Your task to perform on an android device: Open Chrome and go to the settings page Image 0: 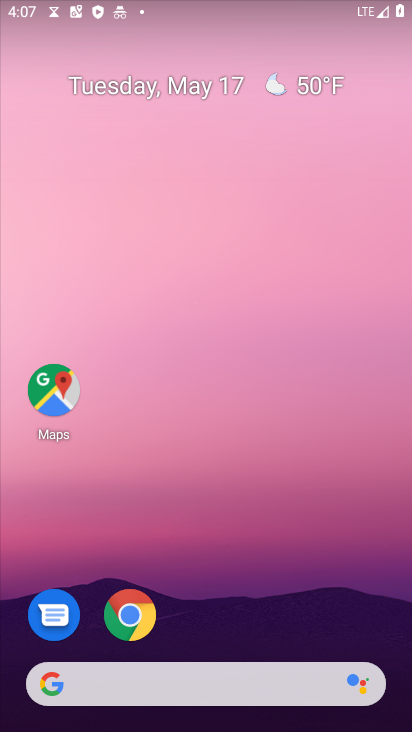
Step 0: drag from (374, 711) to (264, 165)
Your task to perform on an android device: Open Chrome and go to the settings page Image 1: 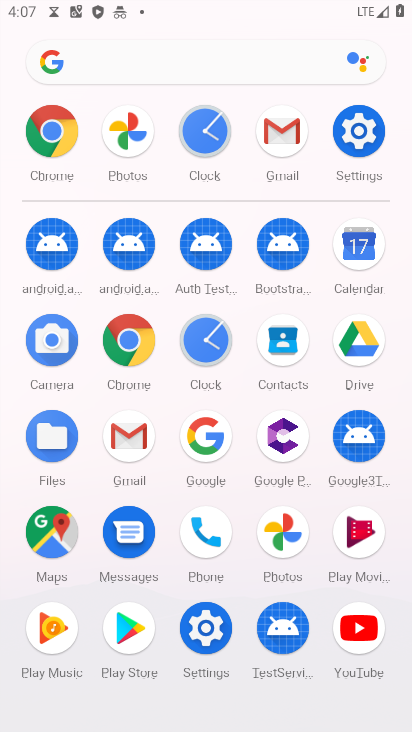
Step 1: click (129, 340)
Your task to perform on an android device: Open Chrome and go to the settings page Image 2: 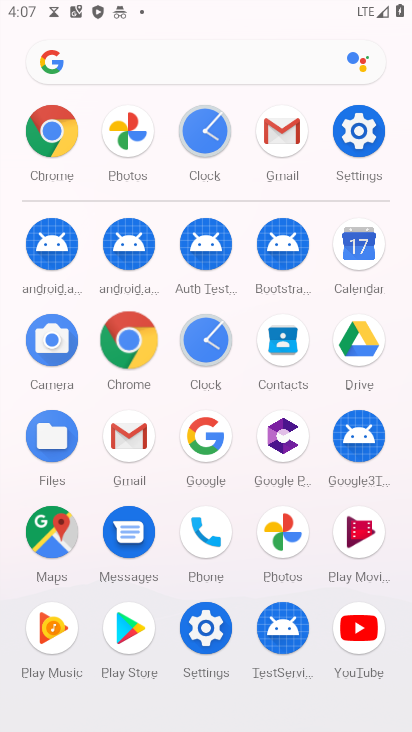
Step 2: click (129, 340)
Your task to perform on an android device: Open Chrome and go to the settings page Image 3: 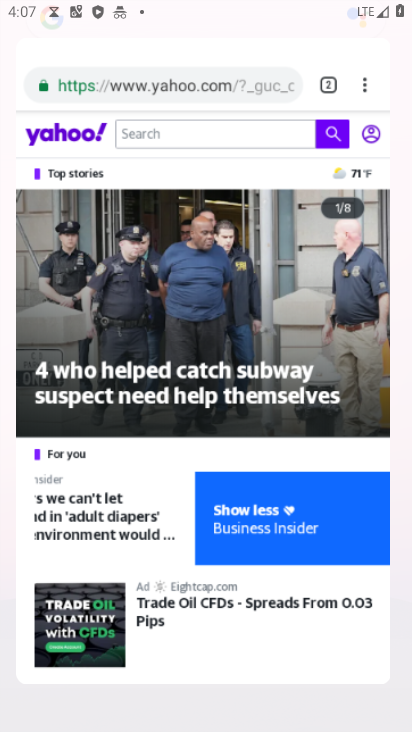
Step 3: click (129, 340)
Your task to perform on an android device: Open Chrome and go to the settings page Image 4: 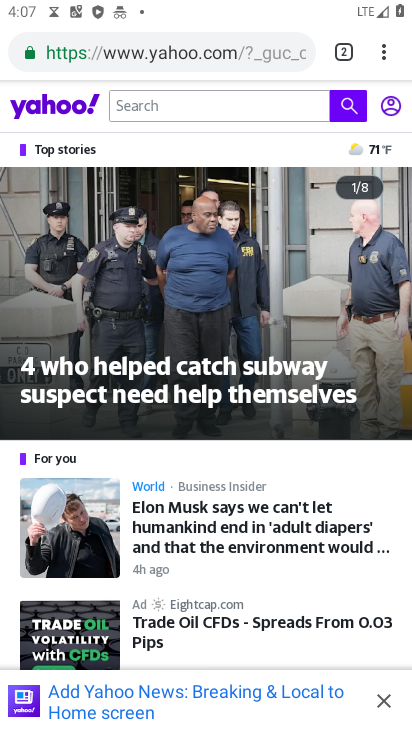
Step 4: click (383, 53)
Your task to perform on an android device: Open Chrome and go to the settings page Image 5: 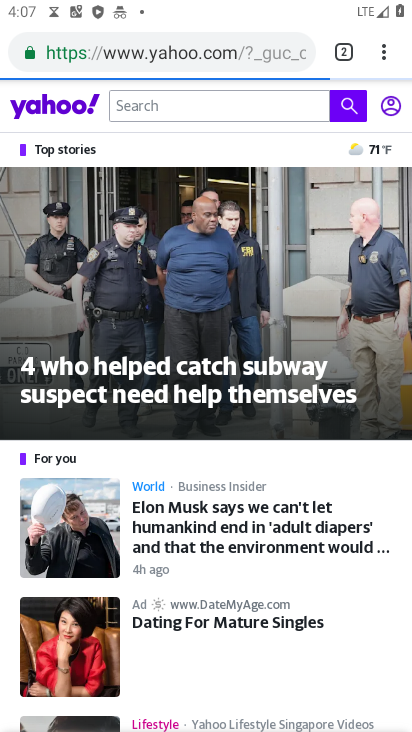
Step 5: drag from (379, 46) to (196, 625)
Your task to perform on an android device: Open Chrome and go to the settings page Image 6: 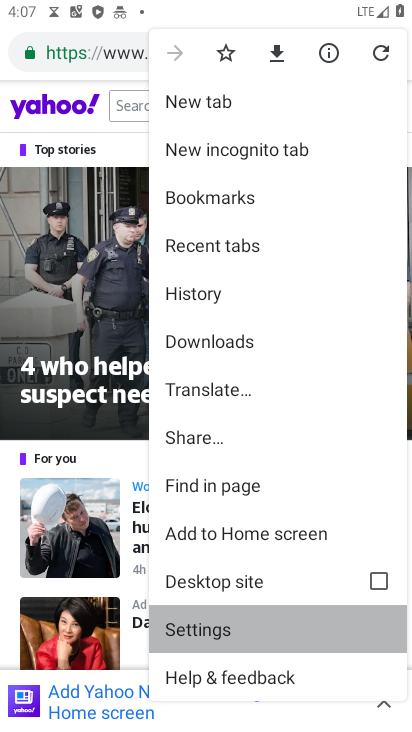
Step 6: click (198, 626)
Your task to perform on an android device: Open Chrome and go to the settings page Image 7: 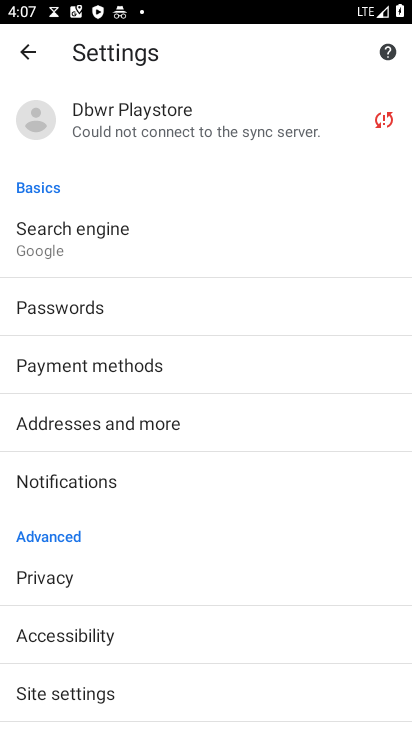
Step 7: task complete